Your task to perform on an android device: When is my next meeting? Image 0: 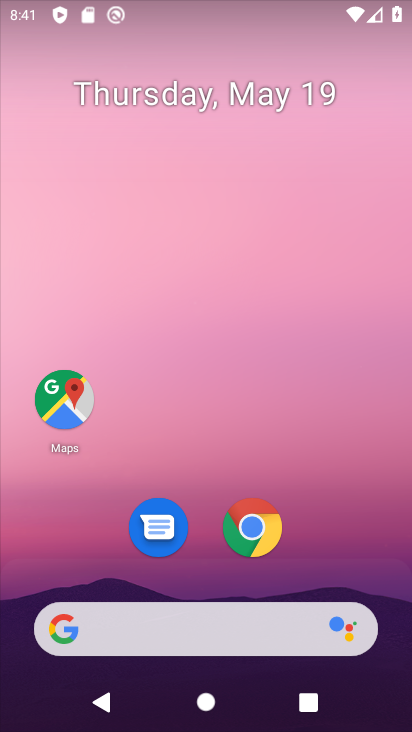
Step 0: drag from (158, 595) to (200, 5)
Your task to perform on an android device: When is my next meeting? Image 1: 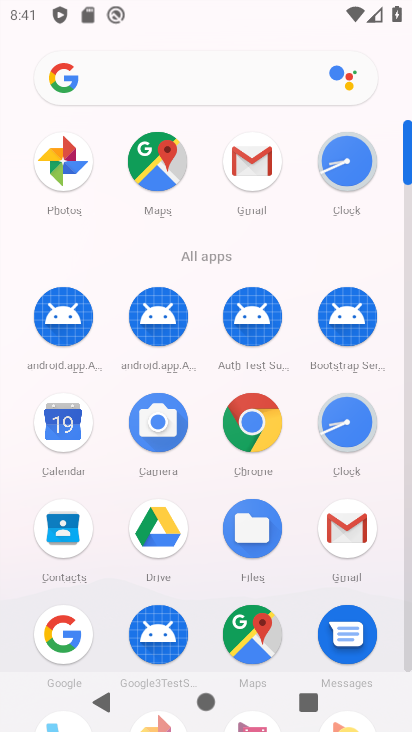
Step 1: click (64, 417)
Your task to perform on an android device: When is my next meeting? Image 2: 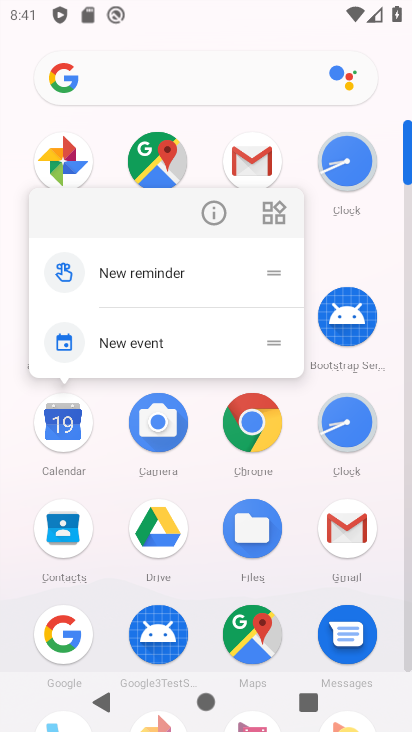
Step 2: click (221, 217)
Your task to perform on an android device: When is my next meeting? Image 3: 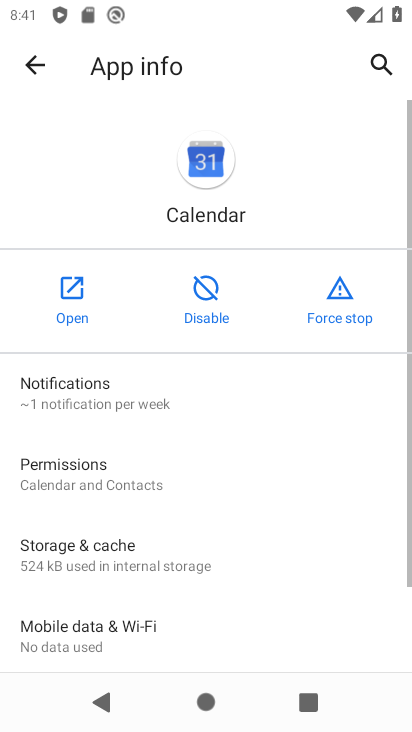
Step 3: click (64, 309)
Your task to perform on an android device: When is my next meeting? Image 4: 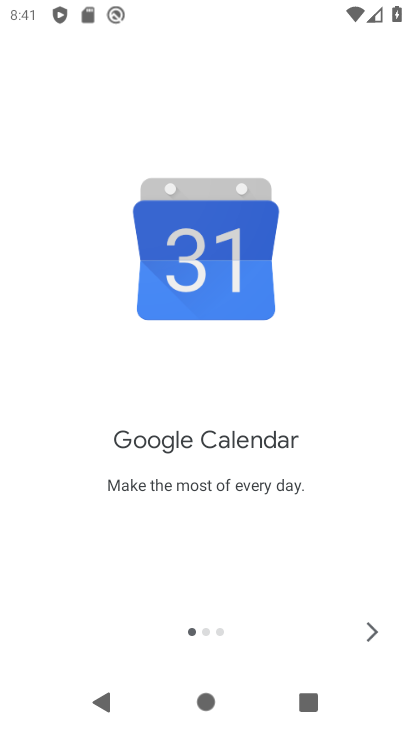
Step 4: drag from (207, 507) to (268, 209)
Your task to perform on an android device: When is my next meeting? Image 5: 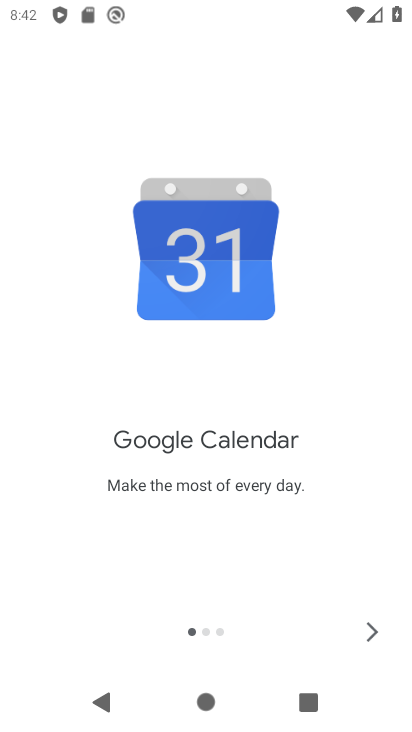
Step 5: click (369, 633)
Your task to perform on an android device: When is my next meeting? Image 6: 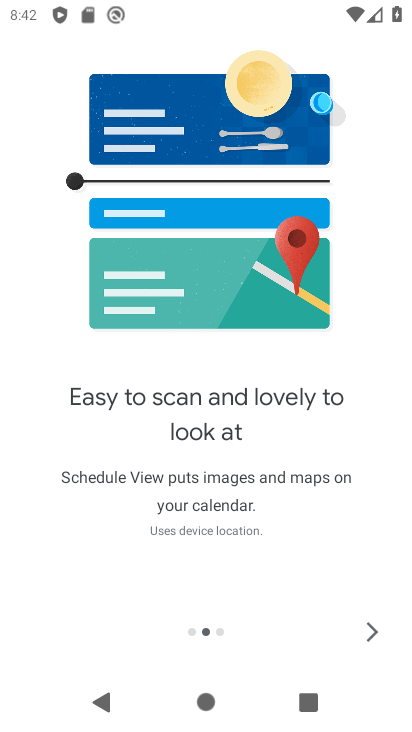
Step 6: drag from (247, 546) to (315, 250)
Your task to perform on an android device: When is my next meeting? Image 7: 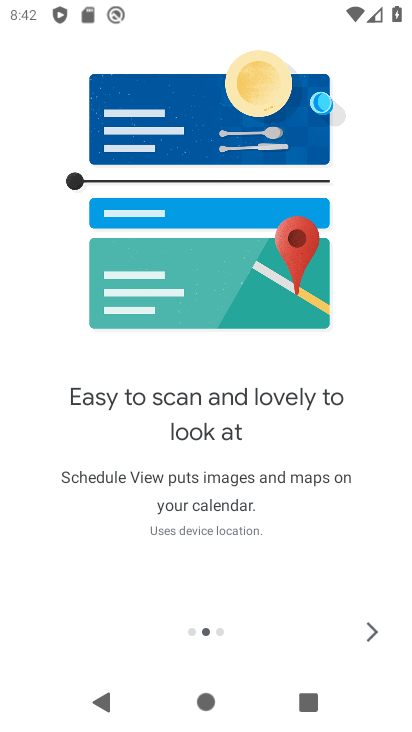
Step 7: click (381, 639)
Your task to perform on an android device: When is my next meeting? Image 8: 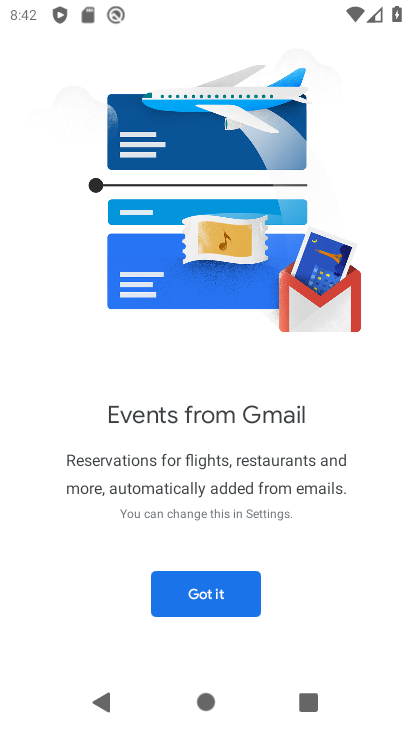
Step 8: drag from (256, 417) to (294, 301)
Your task to perform on an android device: When is my next meeting? Image 9: 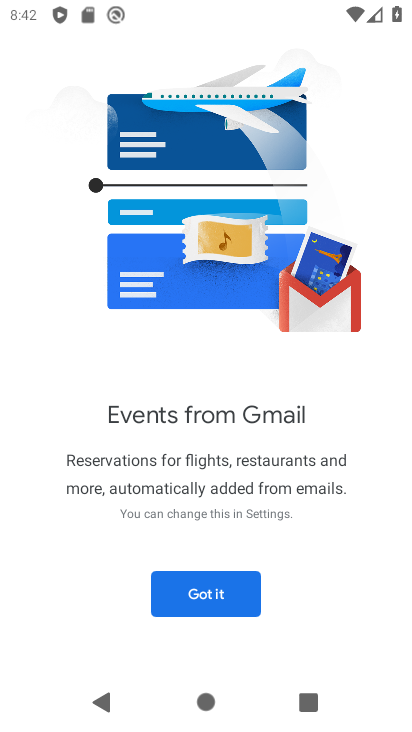
Step 9: click (208, 592)
Your task to perform on an android device: When is my next meeting? Image 10: 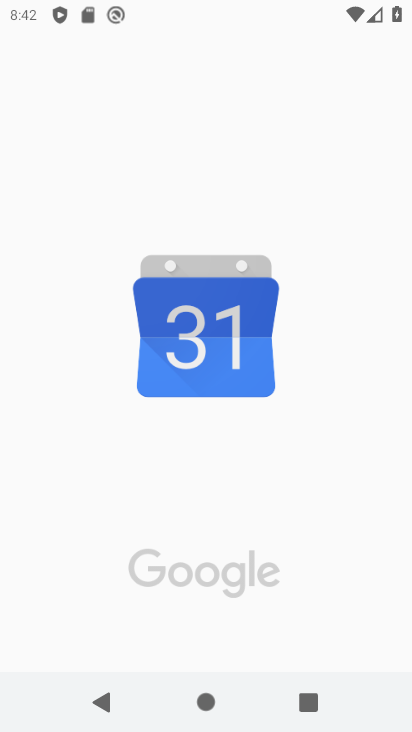
Step 10: drag from (266, 599) to (251, 350)
Your task to perform on an android device: When is my next meeting? Image 11: 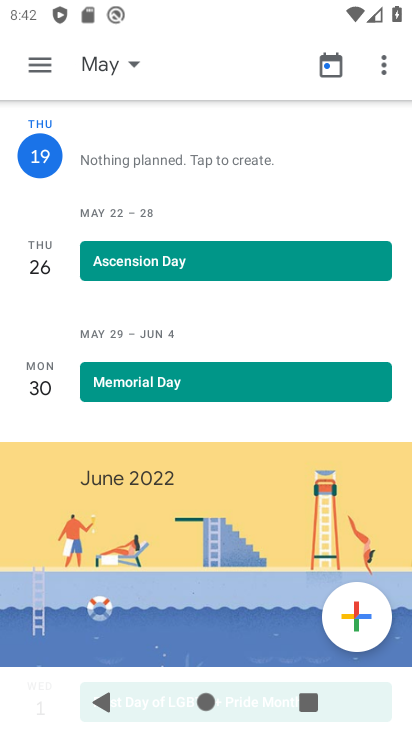
Step 11: drag from (242, 583) to (283, 385)
Your task to perform on an android device: When is my next meeting? Image 12: 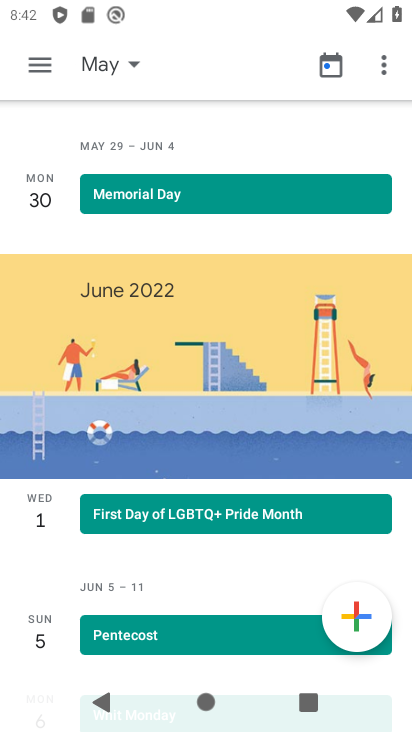
Step 12: drag from (213, 556) to (243, 343)
Your task to perform on an android device: When is my next meeting? Image 13: 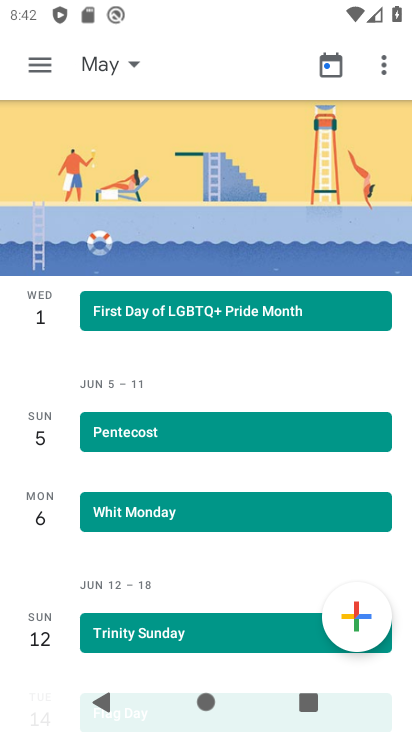
Step 13: drag from (223, 545) to (283, 304)
Your task to perform on an android device: When is my next meeting? Image 14: 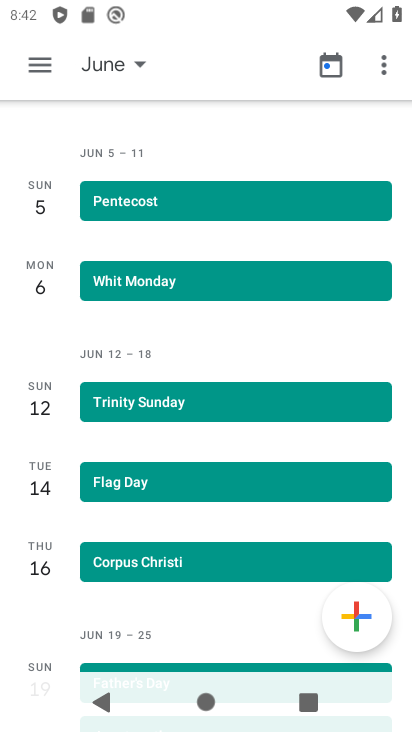
Step 14: drag from (306, 180) to (232, 708)
Your task to perform on an android device: When is my next meeting? Image 15: 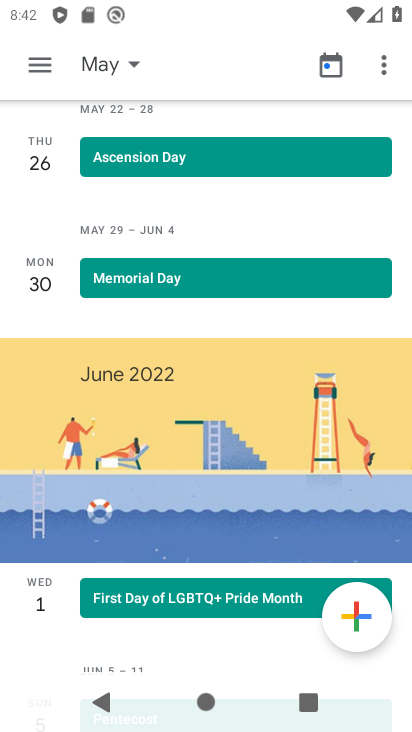
Step 15: click (119, 75)
Your task to perform on an android device: When is my next meeting? Image 16: 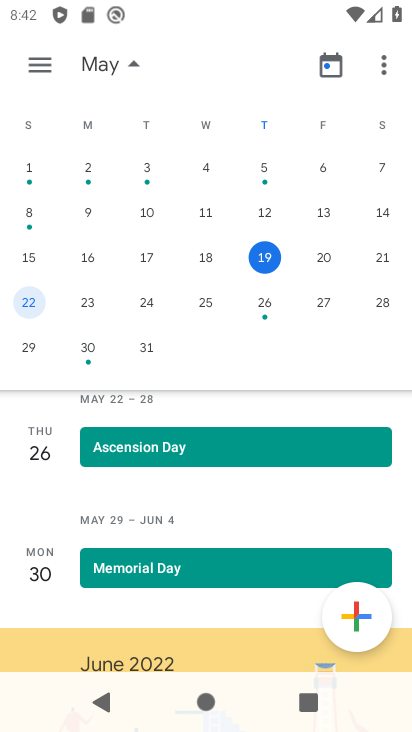
Step 16: click (256, 263)
Your task to perform on an android device: When is my next meeting? Image 17: 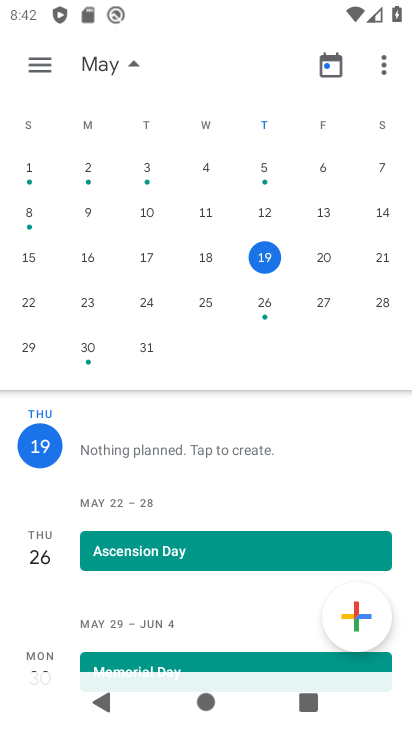
Step 17: drag from (242, 565) to (278, 352)
Your task to perform on an android device: When is my next meeting? Image 18: 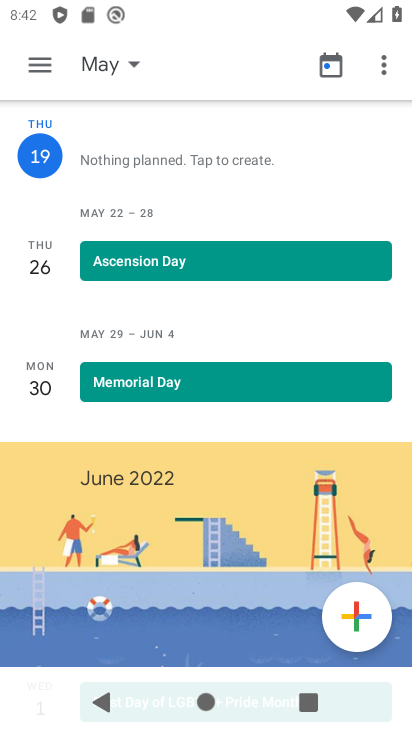
Step 18: drag from (197, 528) to (307, 215)
Your task to perform on an android device: When is my next meeting? Image 19: 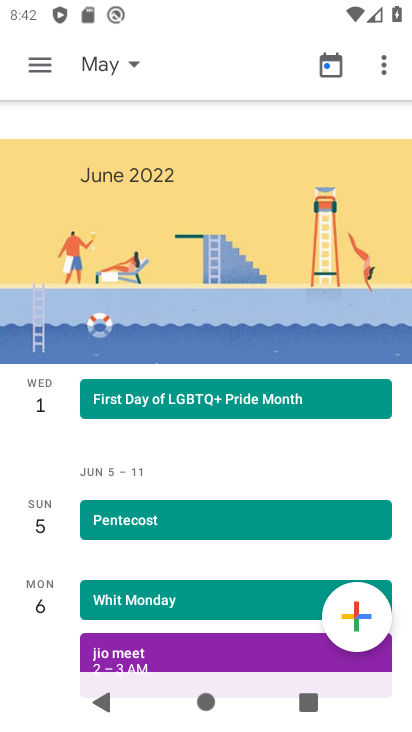
Step 19: drag from (260, 618) to (252, 373)
Your task to perform on an android device: When is my next meeting? Image 20: 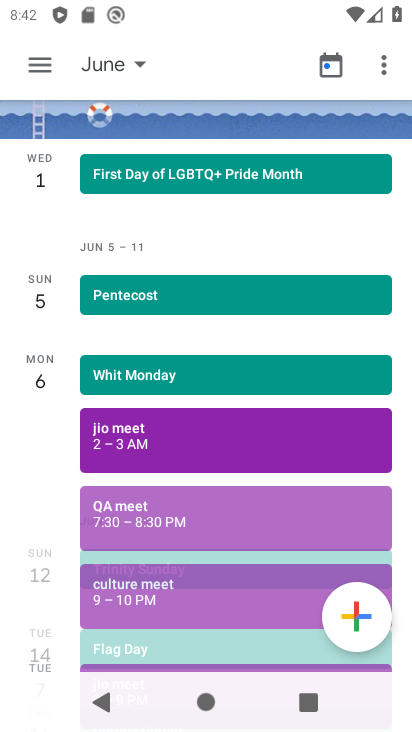
Step 20: click (130, 61)
Your task to perform on an android device: When is my next meeting? Image 21: 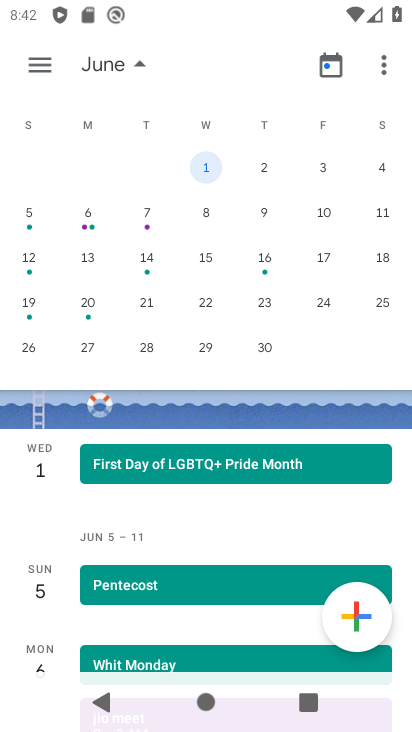
Step 21: drag from (27, 271) to (402, 274)
Your task to perform on an android device: When is my next meeting? Image 22: 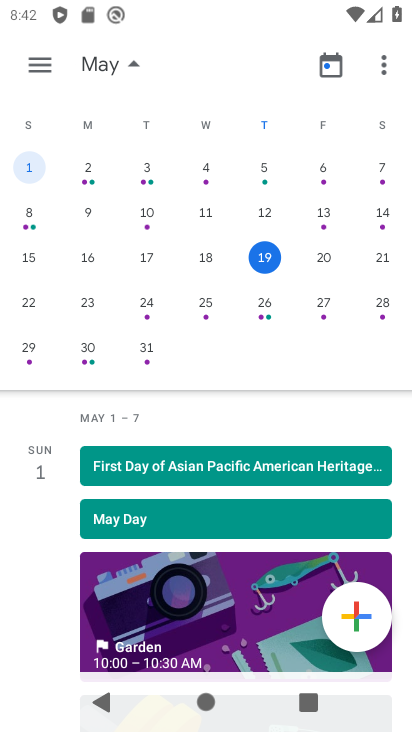
Step 22: click (268, 268)
Your task to perform on an android device: When is my next meeting? Image 23: 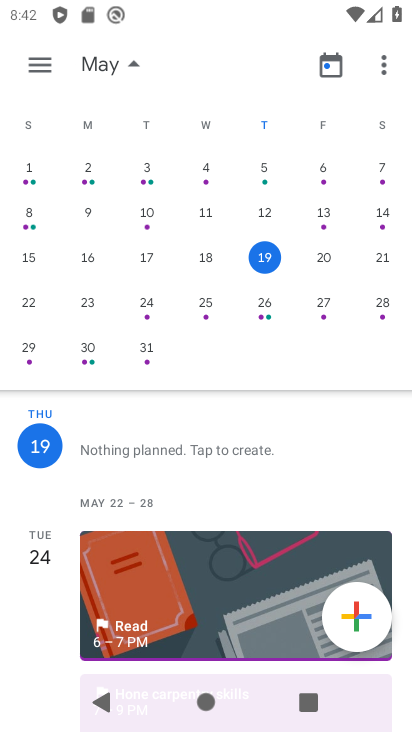
Step 23: task complete